Your task to perform on an android device: turn on wifi Image 0: 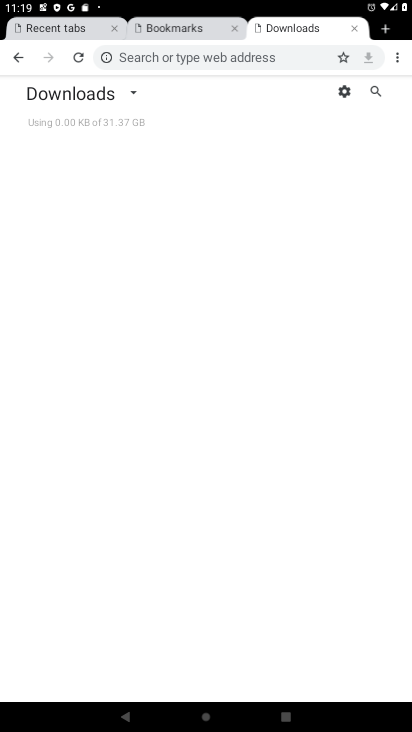
Step 0: press home button
Your task to perform on an android device: turn on wifi Image 1: 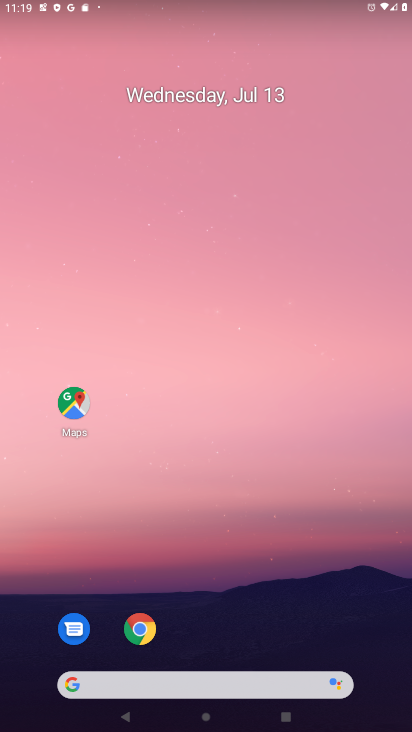
Step 1: drag from (252, 630) to (167, 99)
Your task to perform on an android device: turn on wifi Image 2: 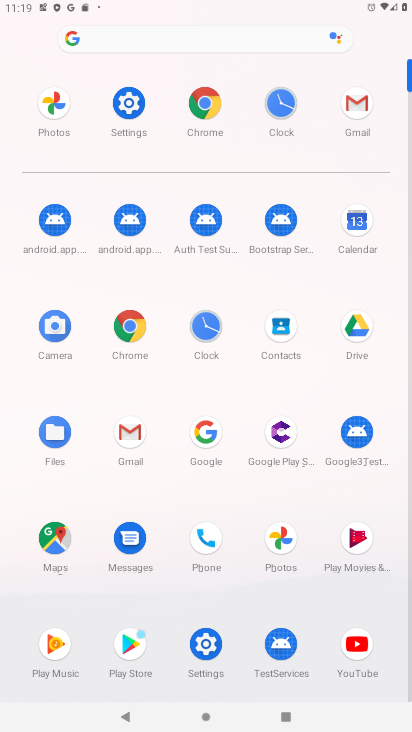
Step 2: click (206, 637)
Your task to perform on an android device: turn on wifi Image 3: 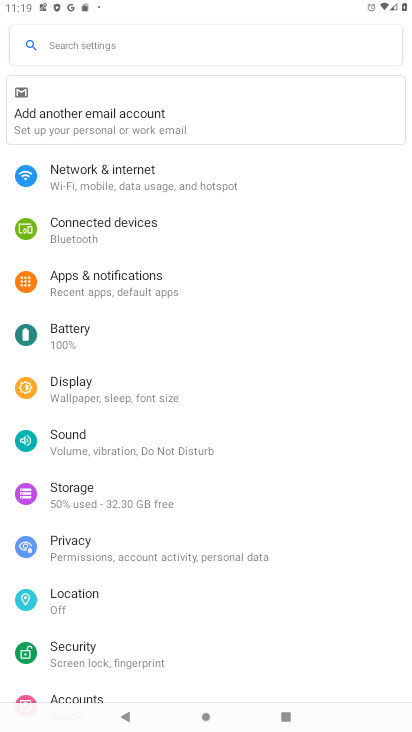
Step 3: click (219, 184)
Your task to perform on an android device: turn on wifi Image 4: 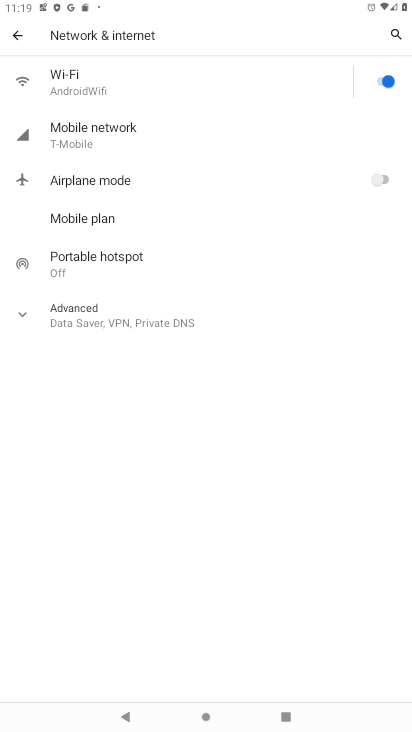
Step 4: task complete